Your task to perform on an android device: uninstall "ColorNote Notepad Notes" Image 0: 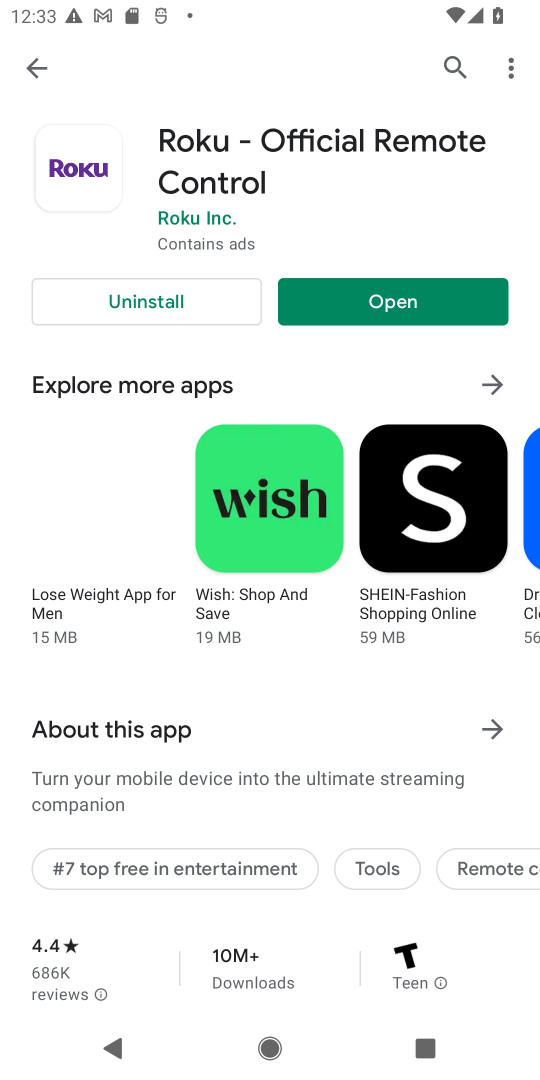
Step 0: click (451, 64)
Your task to perform on an android device: uninstall "ColorNote Notepad Notes" Image 1: 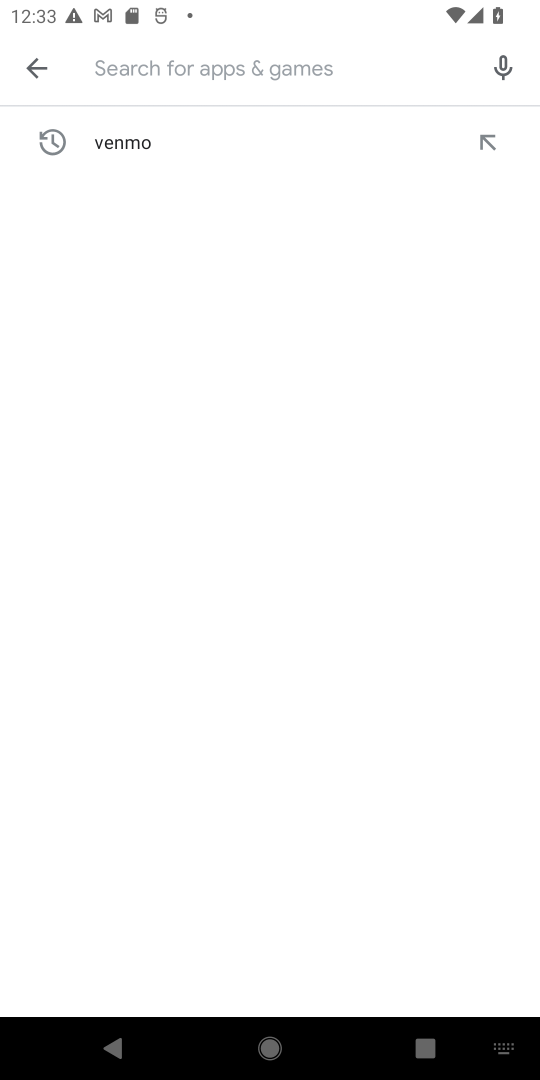
Step 1: type "ColorNote Notepad Notes"
Your task to perform on an android device: uninstall "ColorNote Notepad Notes" Image 2: 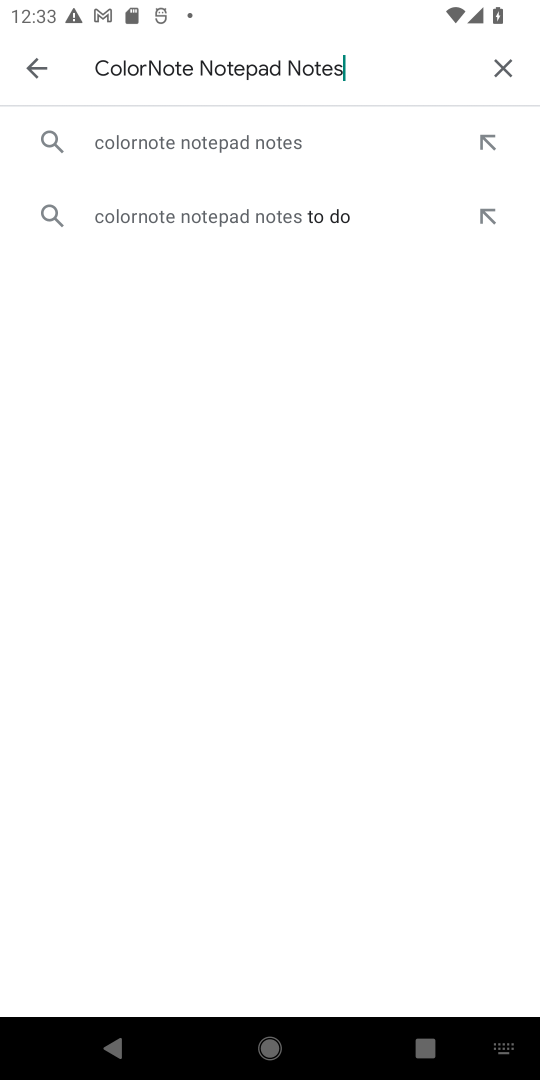
Step 2: click (211, 139)
Your task to perform on an android device: uninstall "ColorNote Notepad Notes" Image 3: 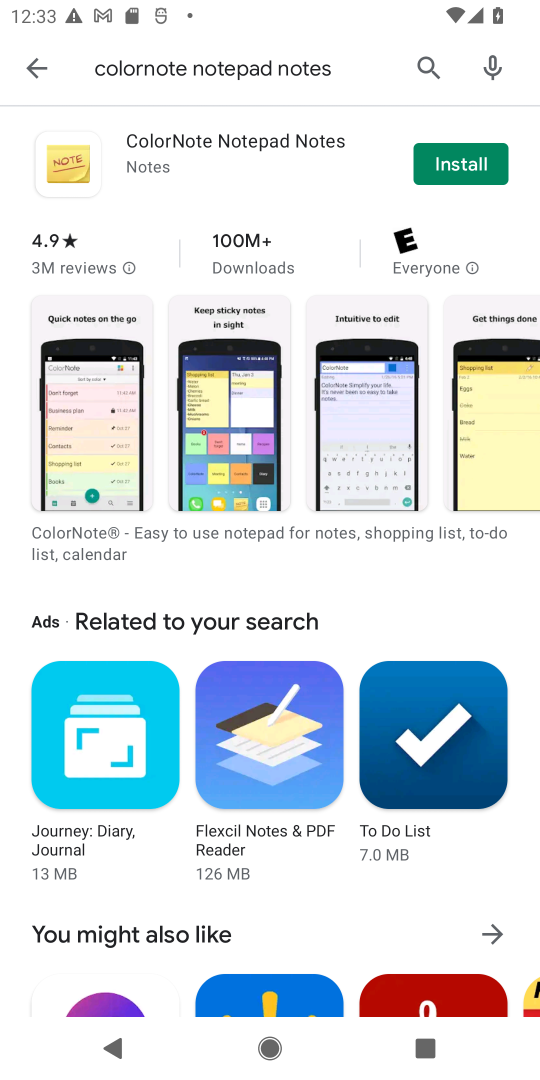
Step 3: click (443, 165)
Your task to perform on an android device: uninstall "ColorNote Notepad Notes" Image 4: 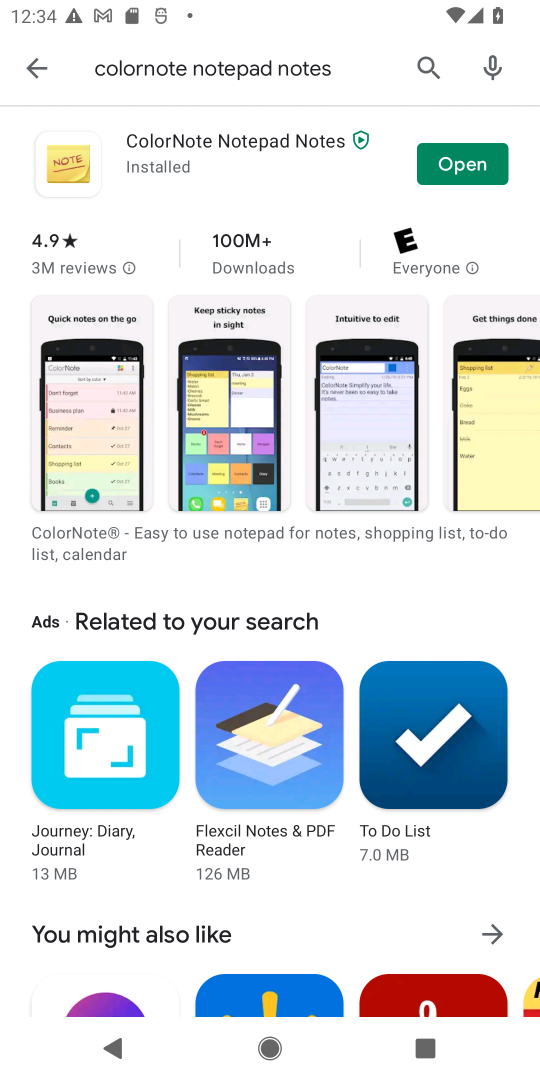
Step 4: click (459, 160)
Your task to perform on an android device: uninstall "ColorNote Notepad Notes" Image 5: 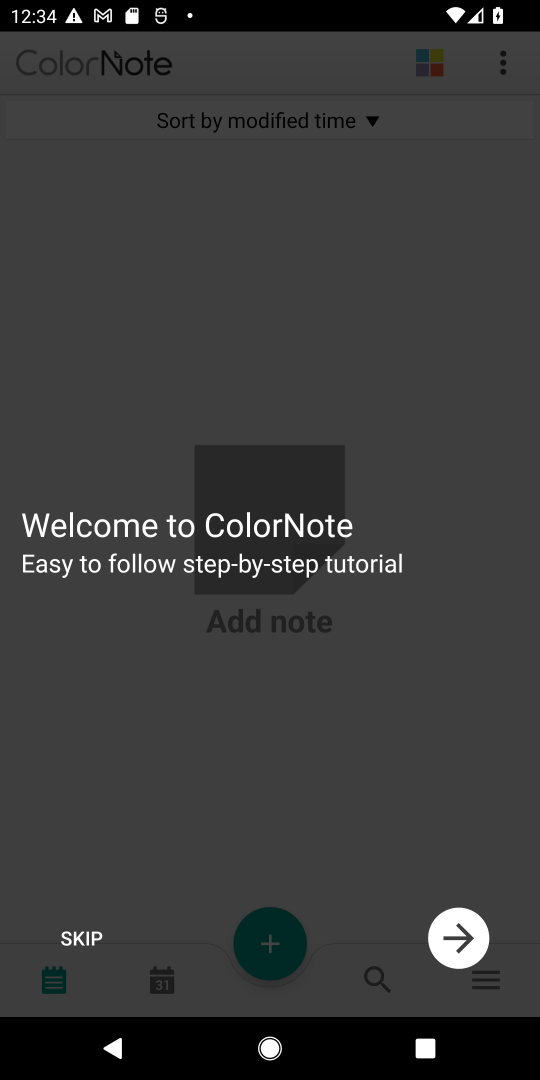
Step 5: task complete